Your task to perform on an android device: set an alarm Image 0: 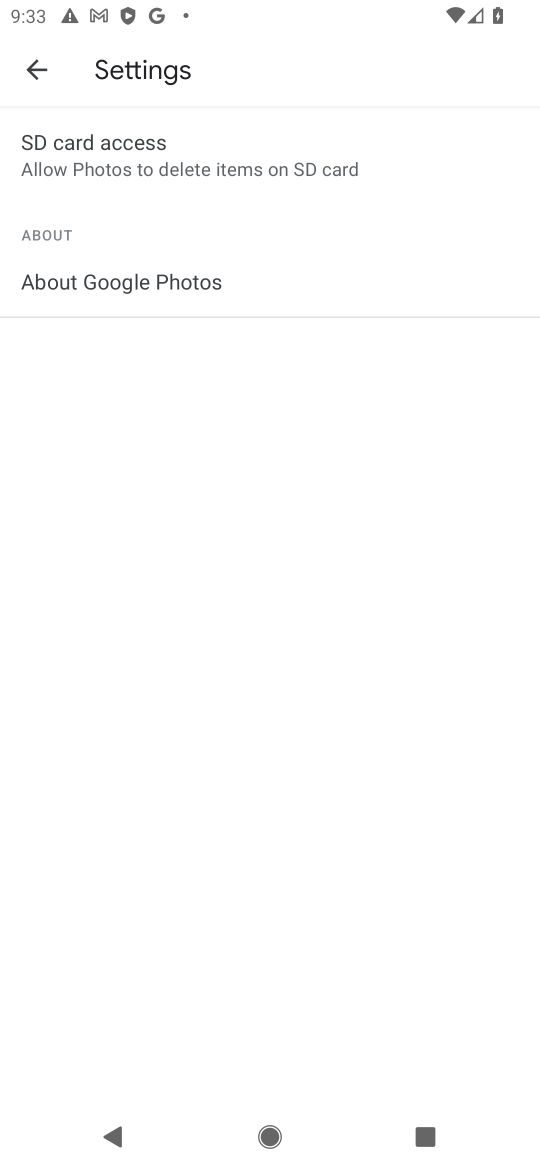
Step 0: press home button
Your task to perform on an android device: set an alarm Image 1: 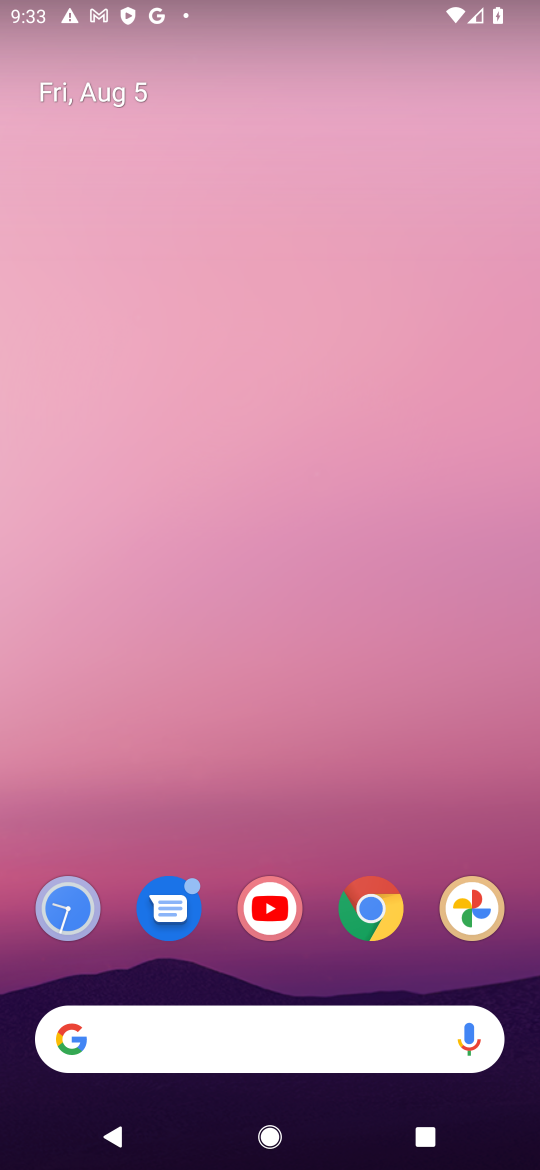
Step 1: drag from (306, 799) to (282, 7)
Your task to perform on an android device: set an alarm Image 2: 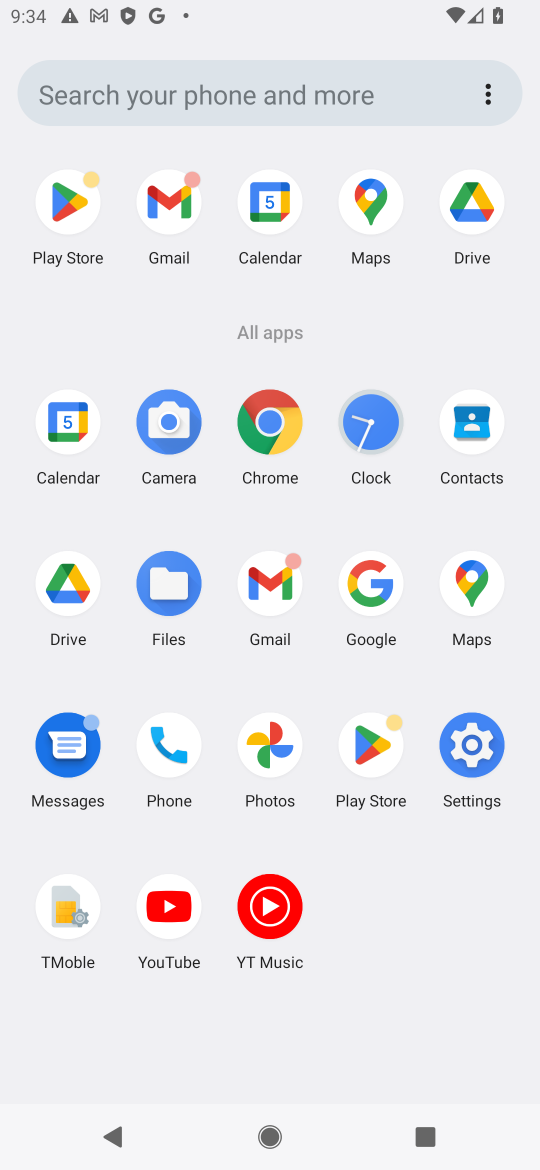
Step 2: click (376, 420)
Your task to perform on an android device: set an alarm Image 3: 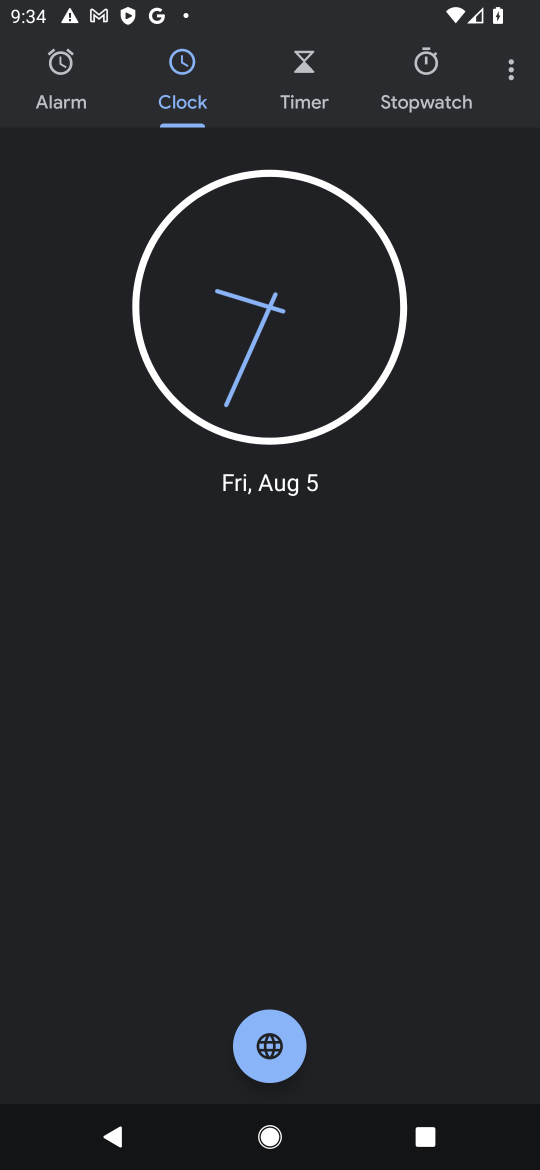
Step 3: click (50, 78)
Your task to perform on an android device: set an alarm Image 4: 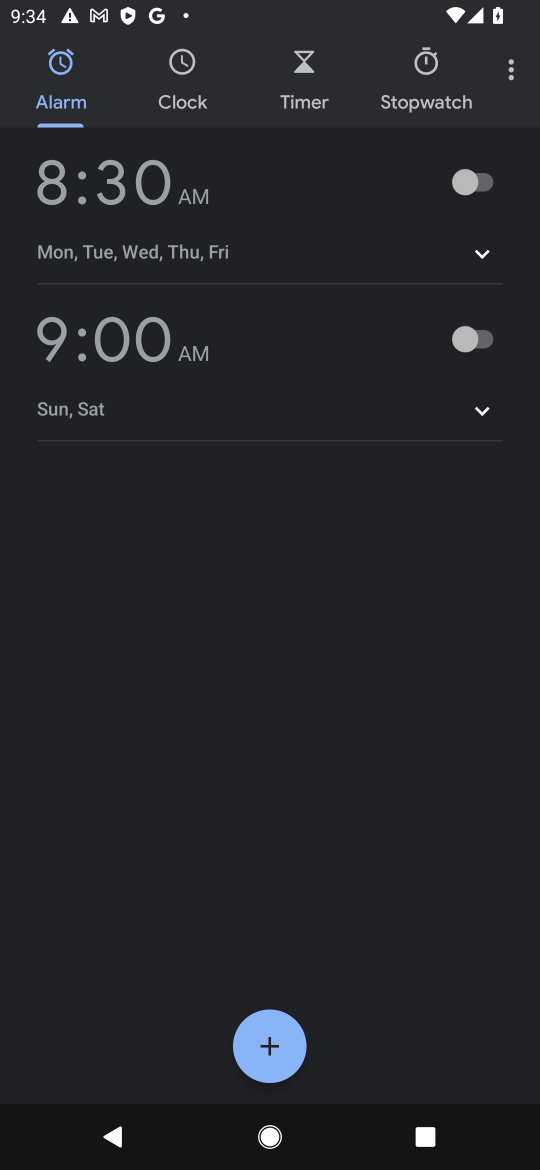
Step 4: click (268, 1044)
Your task to perform on an android device: set an alarm Image 5: 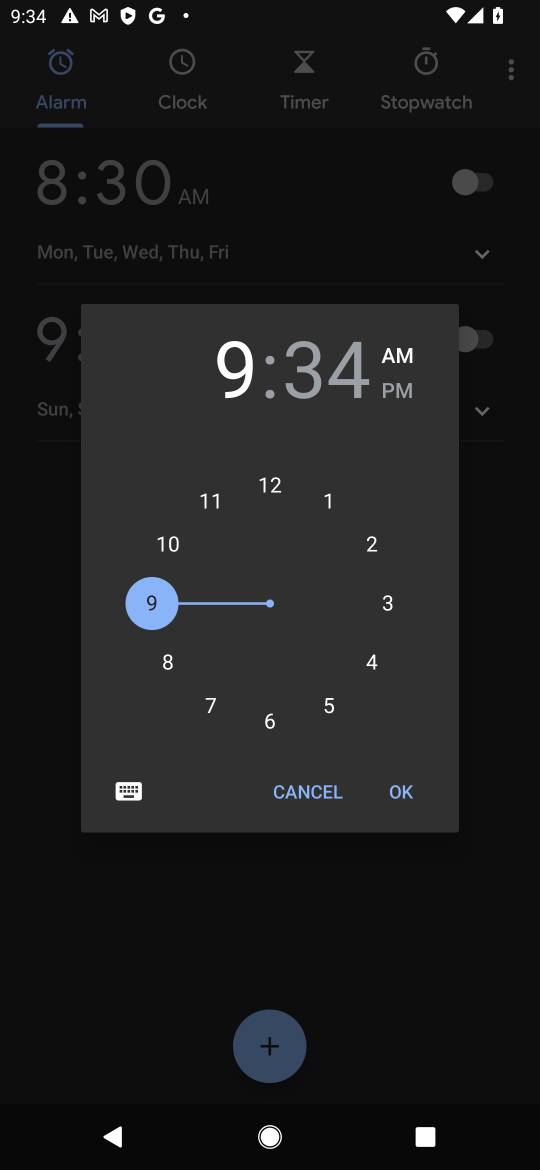
Step 5: click (394, 789)
Your task to perform on an android device: set an alarm Image 6: 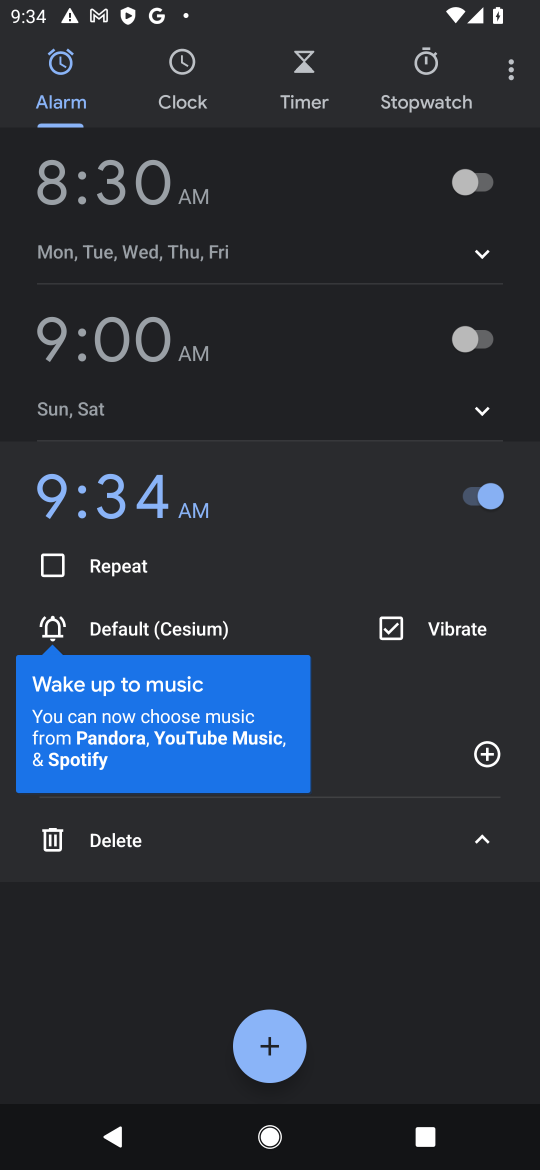
Step 6: task complete